Your task to perform on an android device: turn off translation in the chrome app Image 0: 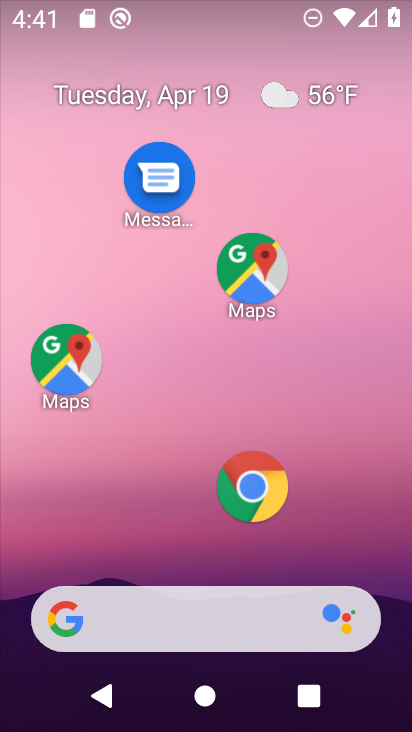
Step 0: click (261, 482)
Your task to perform on an android device: turn off translation in the chrome app Image 1: 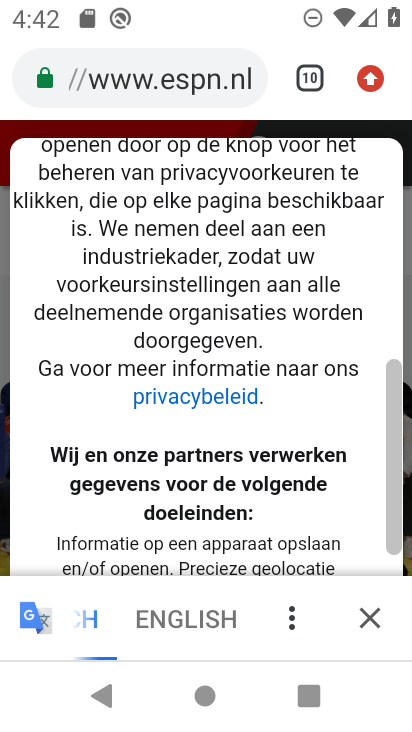
Step 1: click (356, 93)
Your task to perform on an android device: turn off translation in the chrome app Image 2: 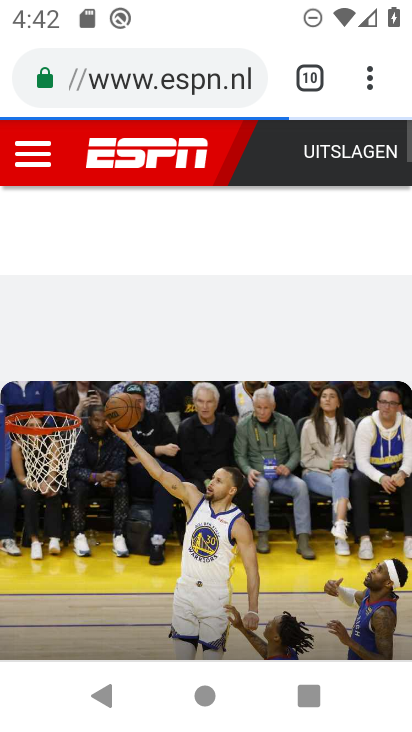
Step 2: click (371, 86)
Your task to perform on an android device: turn off translation in the chrome app Image 3: 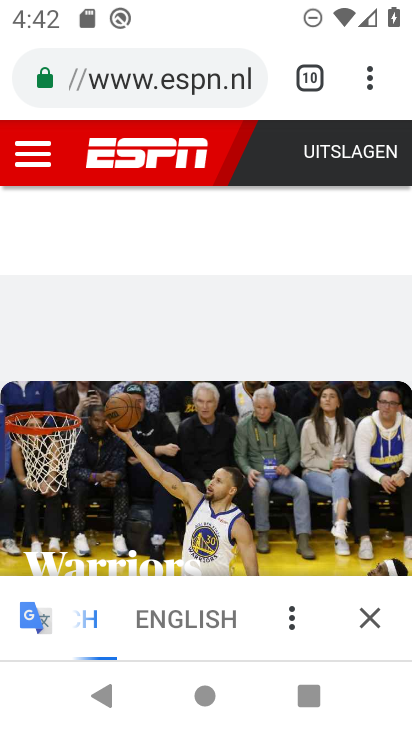
Step 3: click (375, 82)
Your task to perform on an android device: turn off translation in the chrome app Image 4: 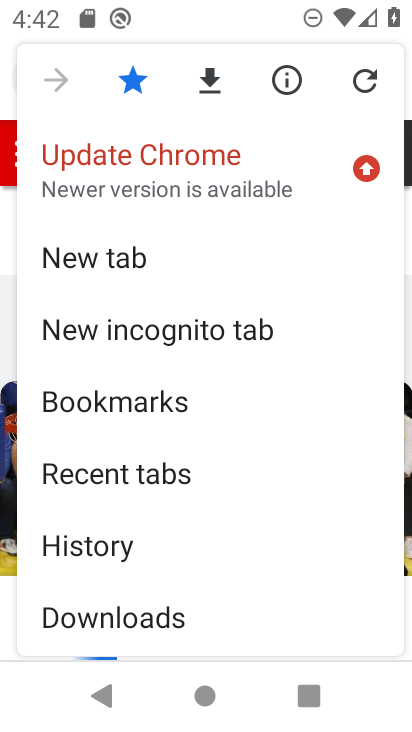
Step 4: drag from (209, 514) to (305, 225)
Your task to perform on an android device: turn off translation in the chrome app Image 5: 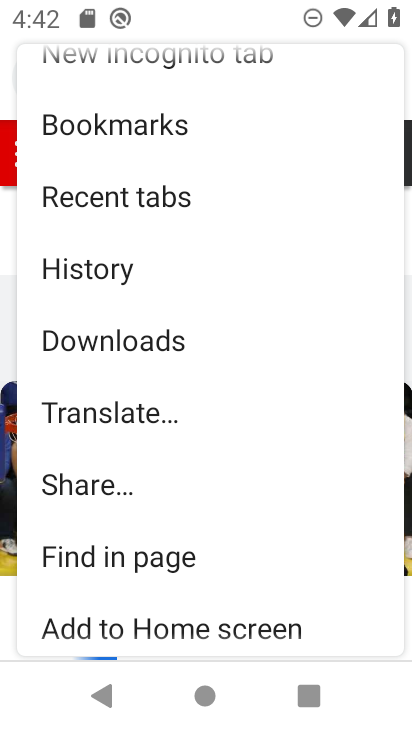
Step 5: drag from (204, 526) to (284, 330)
Your task to perform on an android device: turn off translation in the chrome app Image 6: 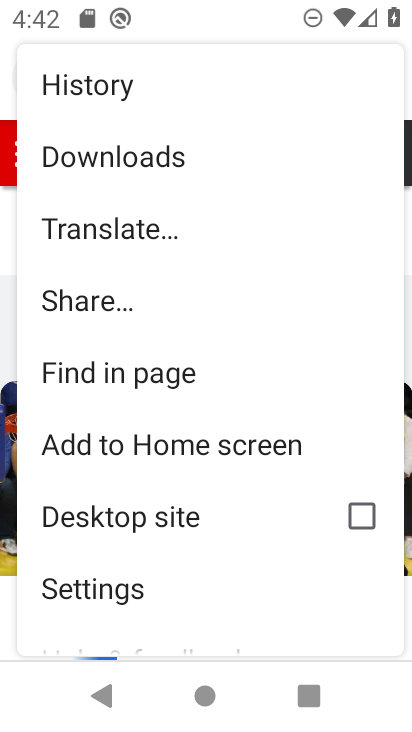
Step 6: click (154, 588)
Your task to perform on an android device: turn off translation in the chrome app Image 7: 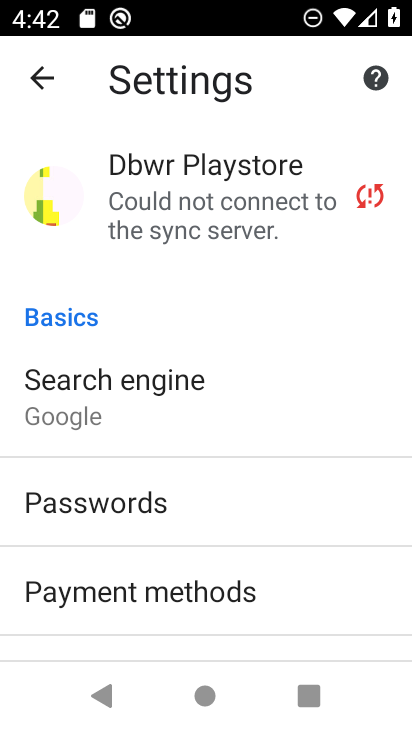
Step 7: drag from (217, 602) to (300, 335)
Your task to perform on an android device: turn off translation in the chrome app Image 8: 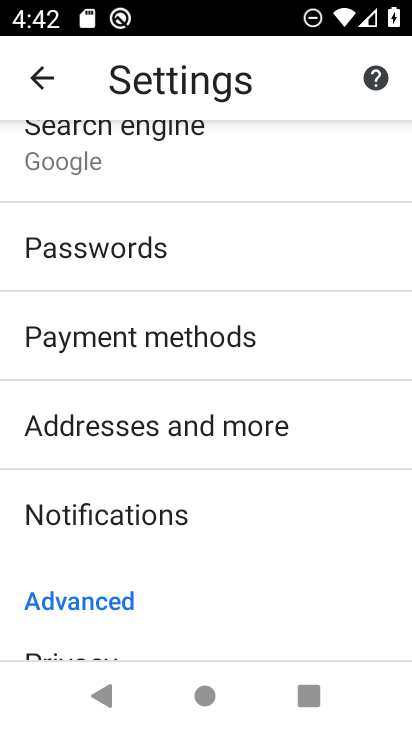
Step 8: drag from (178, 585) to (279, 318)
Your task to perform on an android device: turn off translation in the chrome app Image 9: 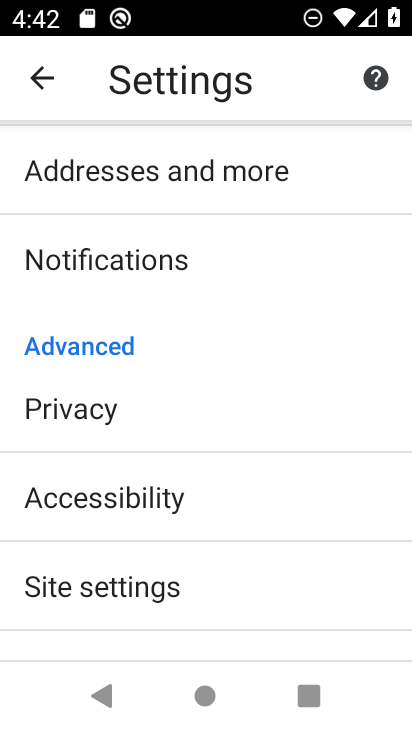
Step 9: drag from (212, 507) to (298, 320)
Your task to perform on an android device: turn off translation in the chrome app Image 10: 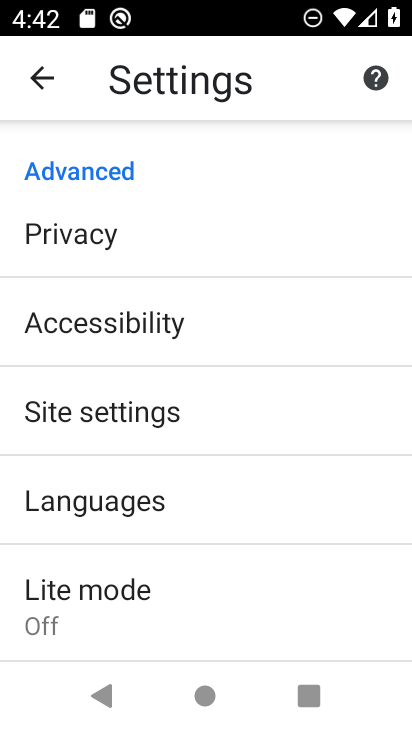
Step 10: click (195, 493)
Your task to perform on an android device: turn off translation in the chrome app Image 11: 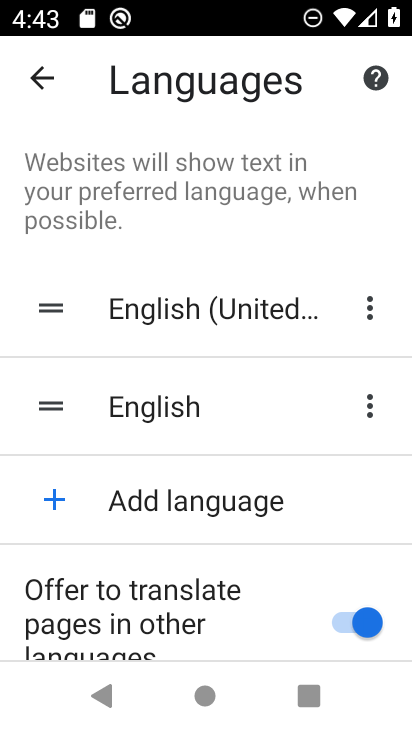
Step 11: drag from (235, 583) to (336, 338)
Your task to perform on an android device: turn off translation in the chrome app Image 12: 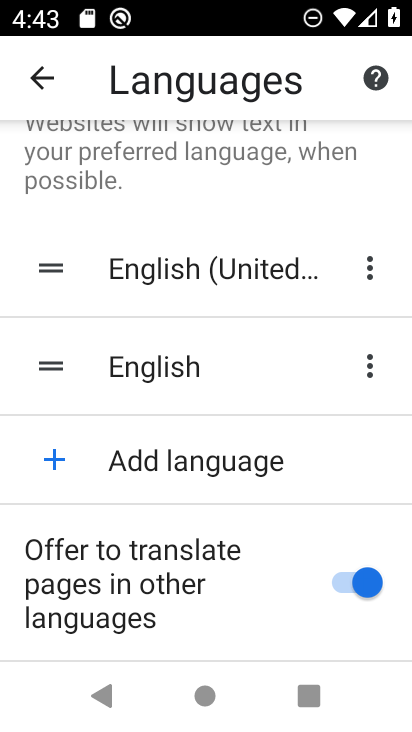
Step 12: click (332, 585)
Your task to perform on an android device: turn off translation in the chrome app Image 13: 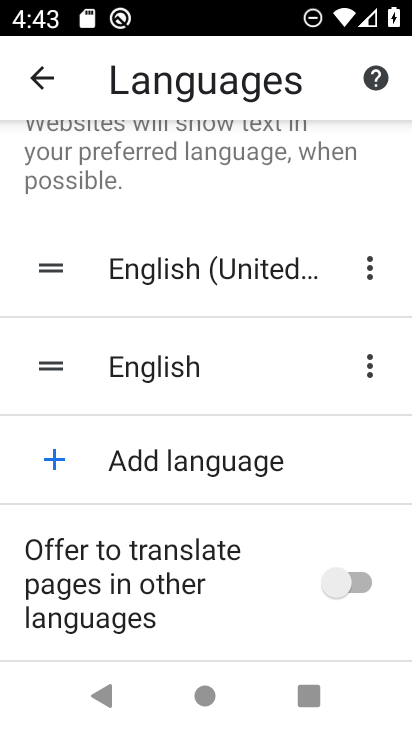
Step 13: task complete